Your task to perform on an android device: Search for pizza restaurants on Maps Image 0: 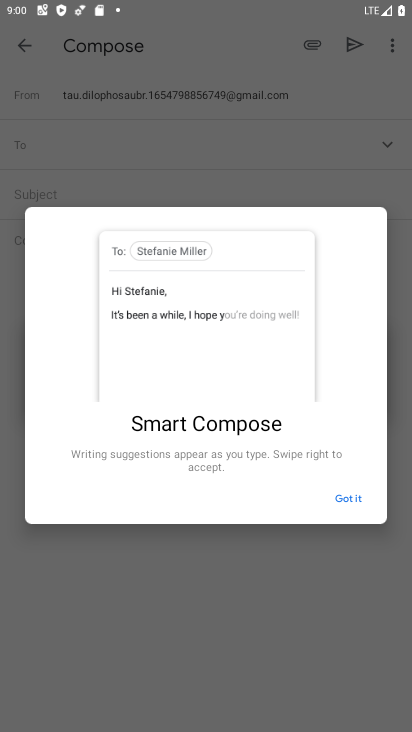
Step 0: click (348, 502)
Your task to perform on an android device: Search for pizza restaurants on Maps Image 1: 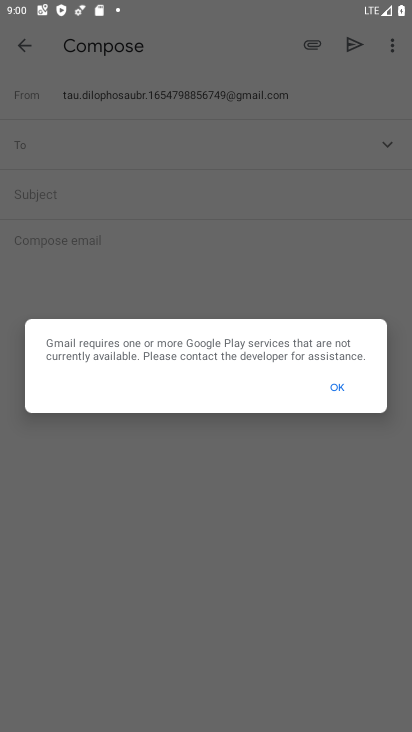
Step 1: click (337, 395)
Your task to perform on an android device: Search for pizza restaurants on Maps Image 2: 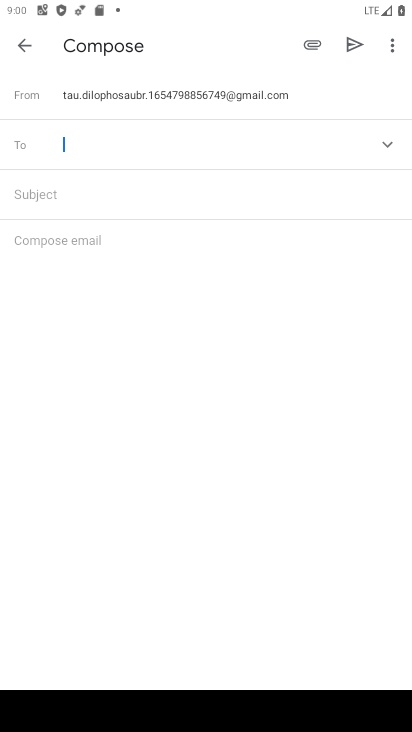
Step 2: press home button
Your task to perform on an android device: Search for pizza restaurants on Maps Image 3: 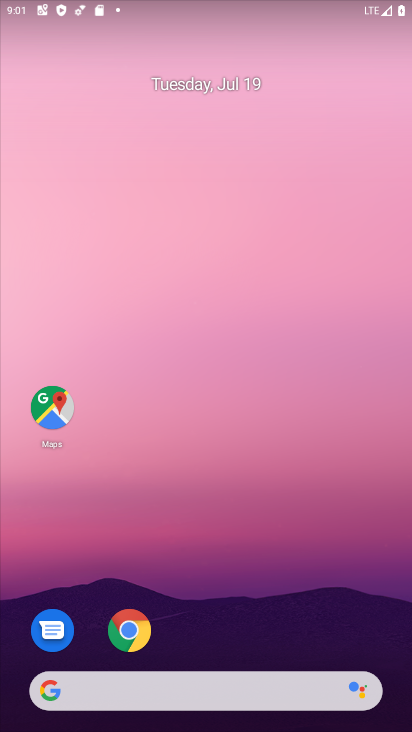
Step 3: drag from (264, 591) to (308, 6)
Your task to perform on an android device: Search for pizza restaurants on Maps Image 4: 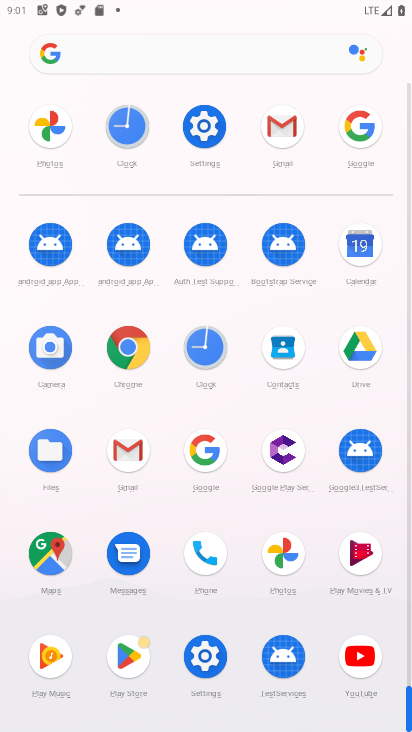
Step 4: click (43, 569)
Your task to perform on an android device: Search for pizza restaurants on Maps Image 5: 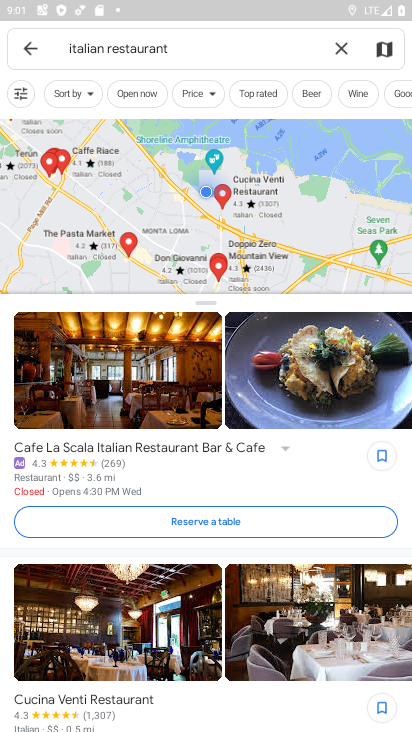
Step 5: click (335, 54)
Your task to perform on an android device: Search for pizza restaurants on Maps Image 6: 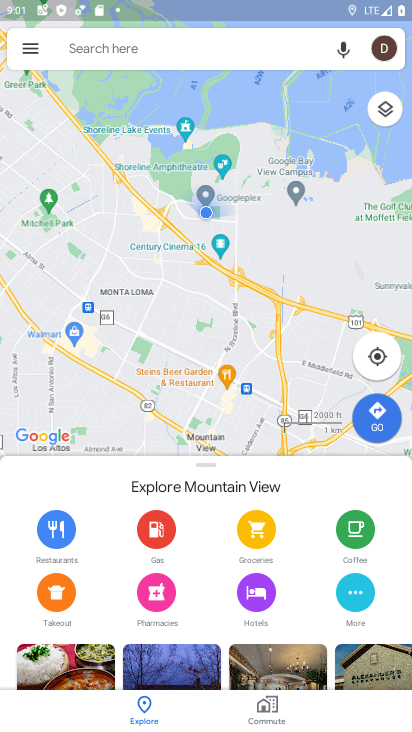
Step 6: click (207, 47)
Your task to perform on an android device: Search for pizza restaurants on Maps Image 7: 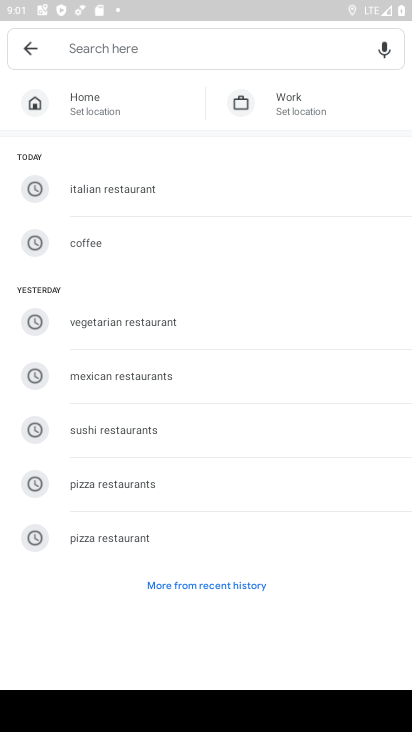
Step 7: click (94, 544)
Your task to perform on an android device: Search for pizza restaurants on Maps Image 8: 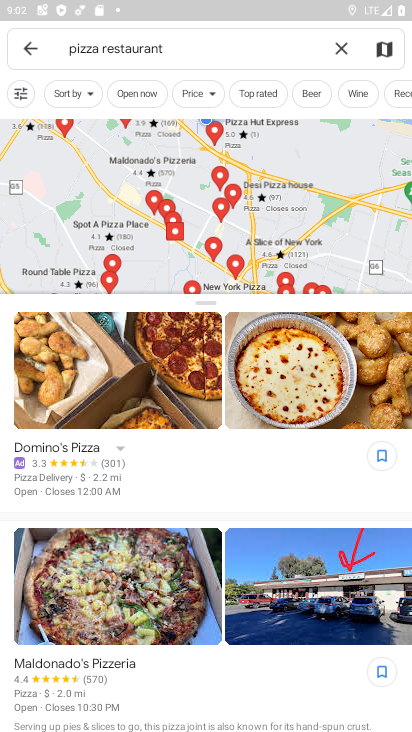
Step 8: task complete